Your task to perform on an android device: Go to CNN.com Image 0: 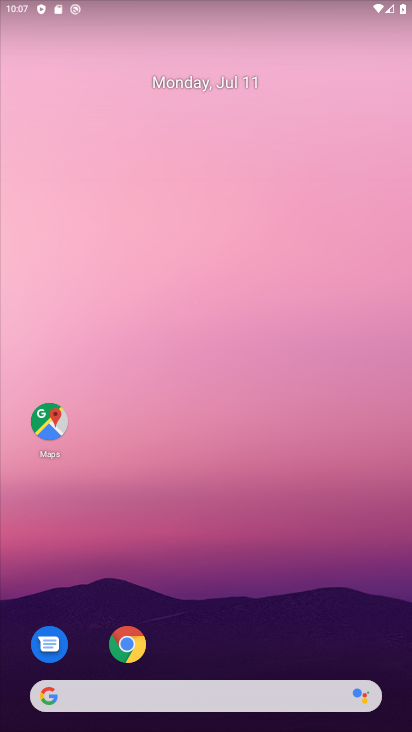
Step 0: press home button
Your task to perform on an android device: Go to CNN.com Image 1: 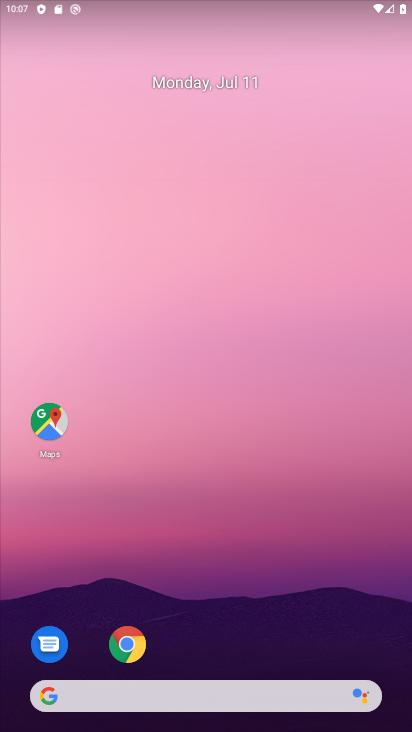
Step 1: press home button
Your task to perform on an android device: Go to CNN.com Image 2: 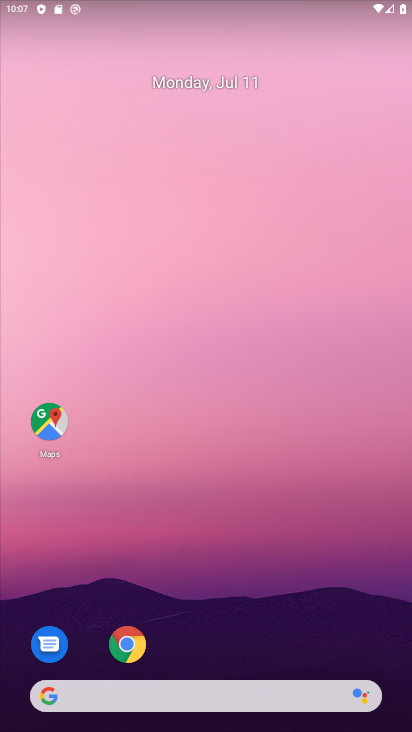
Step 2: press home button
Your task to perform on an android device: Go to CNN.com Image 3: 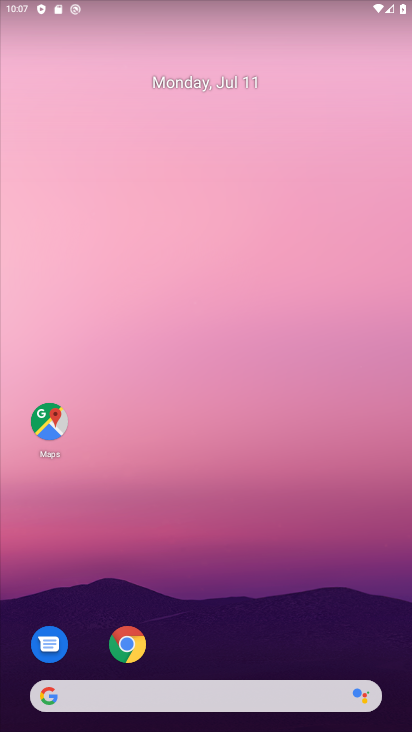
Step 3: press home button
Your task to perform on an android device: Go to CNN.com Image 4: 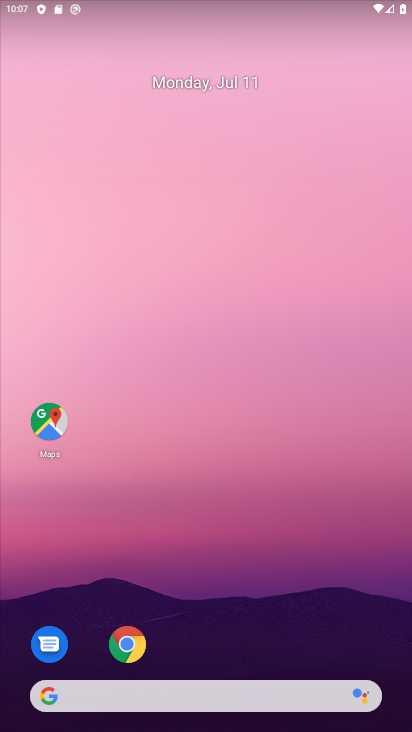
Step 4: click (134, 645)
Your task to perform on an android device: Go to CNN.com Image 5: 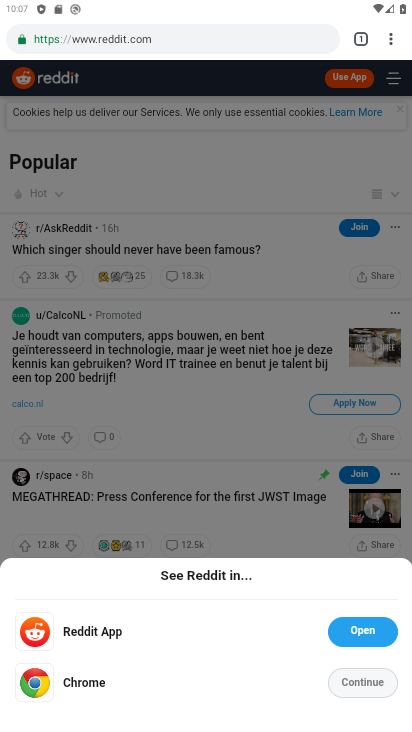
Step 5: click (163, 35)
Your task to perform on an android device: Go to CNN.com Image 6: 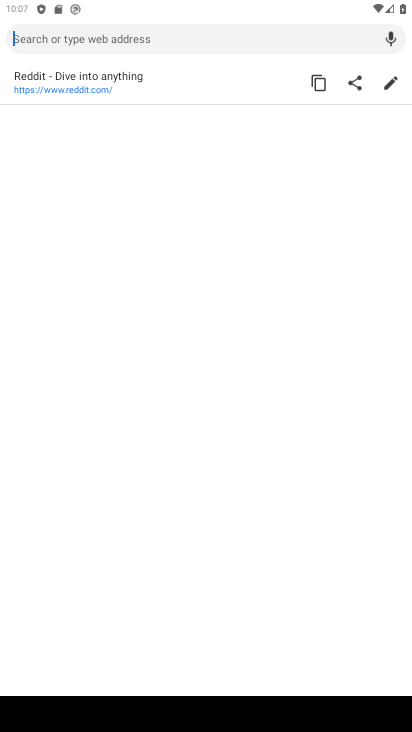
Step 6: type "CNN.com"
Your task to perform on an android device: Go to CNN.com Image 7: 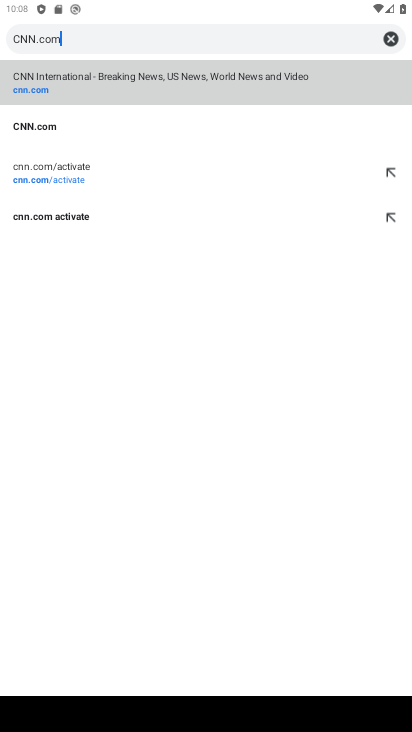
Step 7: click (150, 83)
Your task to perform on an android device: Go to CNN.com Image 8: 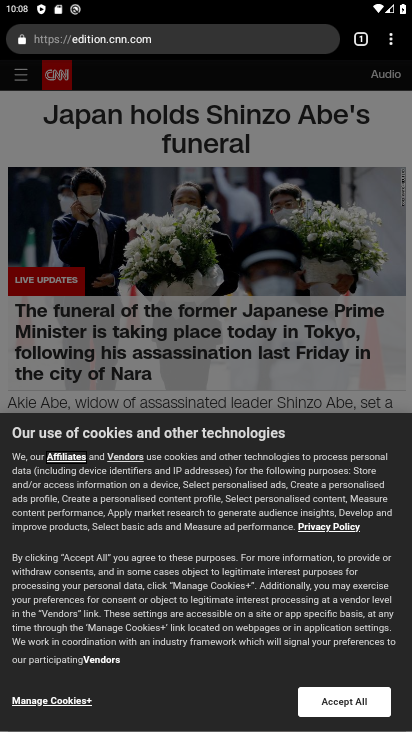
Step 8: task complete